Your task to perform on an android device: search for starred emails in the gmail app Image 0: 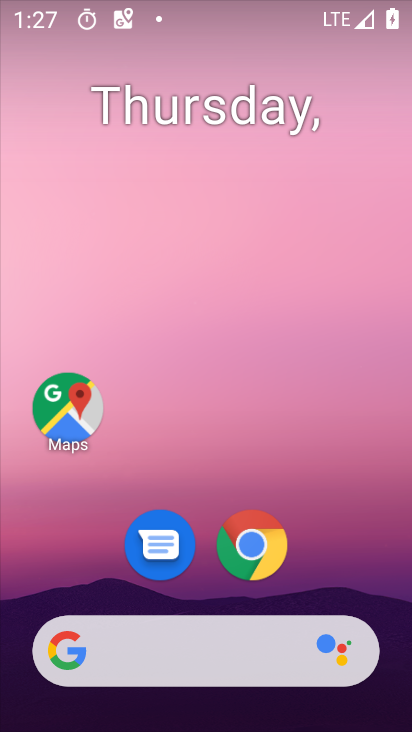
Step 0: drag from (206, 648) to (247, 0)
Your task to perform on an android device: search for starred emails in the gmail app Image 1: 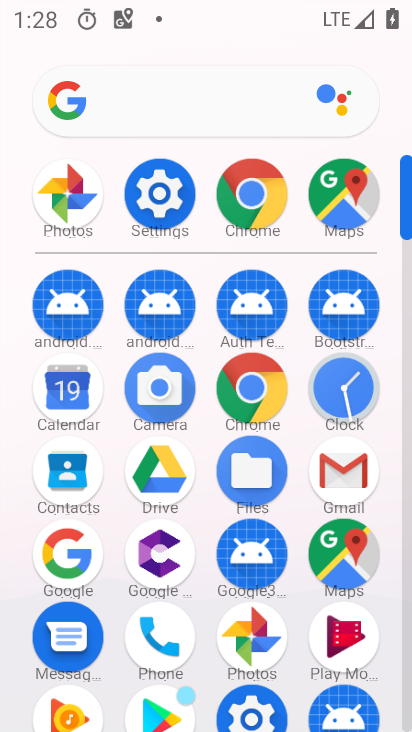
Step 1: click (350, 477)
Your task to perform on an android device: search for starred emails in the gmail app Image 2: 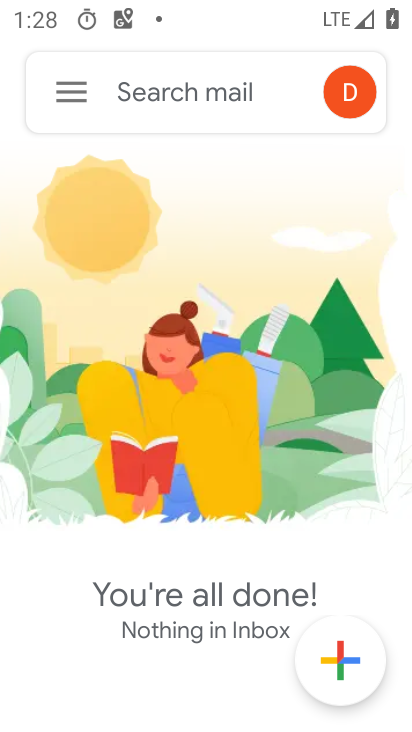
Step 2: click (72, 80)
Your task to perform on an android device: search for starred emails in the gmail app Image 3: 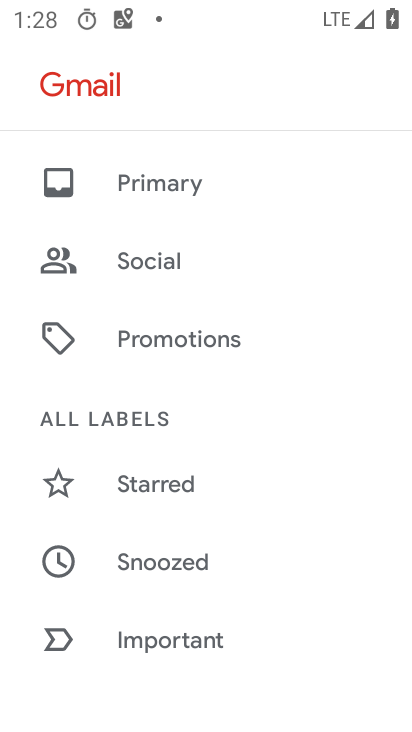
Step 3: click (176, 484)
Your task to perform on an android device: search for starred emails in the gmail app Image 4: 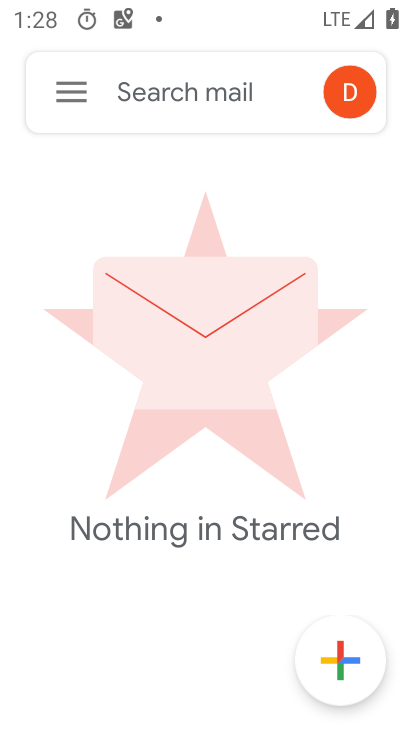
Step 4: task complete